Your task to perform on an android device: check storage Image 0: 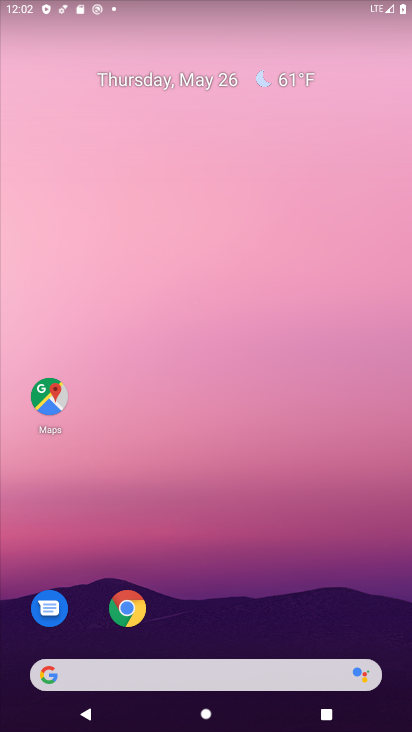
Step 0: drag from (385, 590) to (335, 29)
Your task to perform on an android device: check storage Image 1: 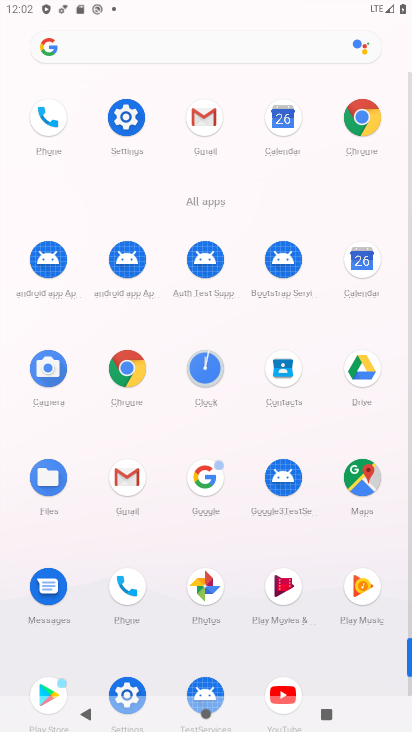
Step 1: click (410, 682)
Your task to perform on an android device: check storage Image 2: 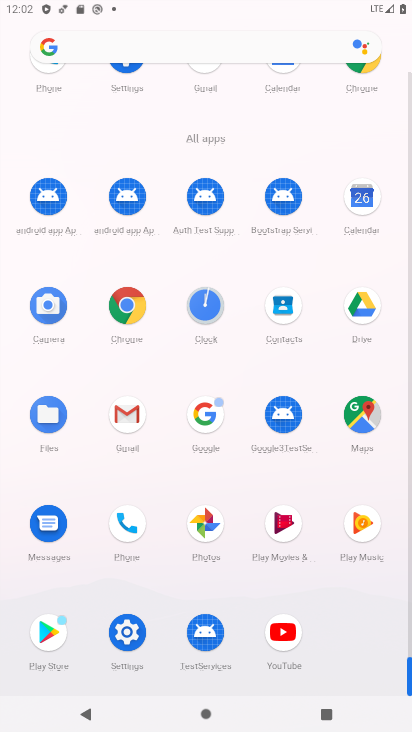
Step 2: click (125, 631)
Your task to perform on an android device: check storage Image 3: 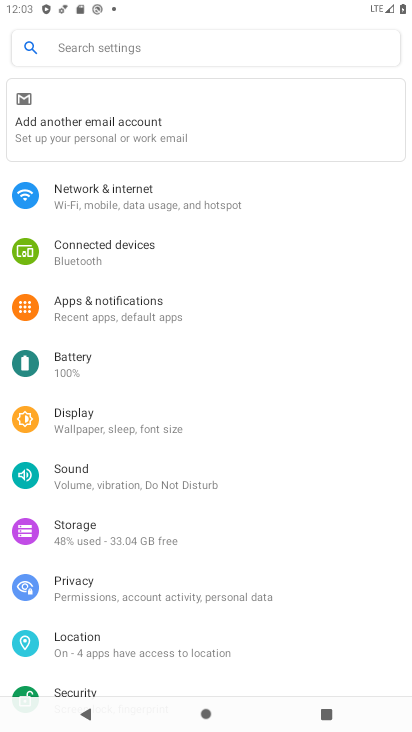
Step 3: click (74, 529)
Your task to perform on an android device: check storage Image 4: 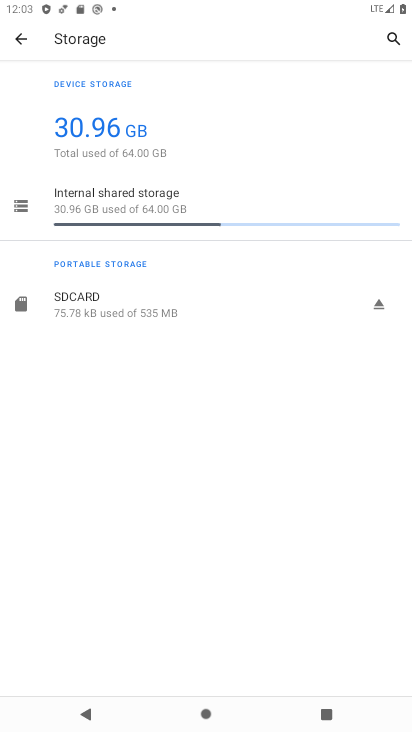
Step 4: task complete